Your task to perform on an android device: Show me the alarms in the clock app Image 0: 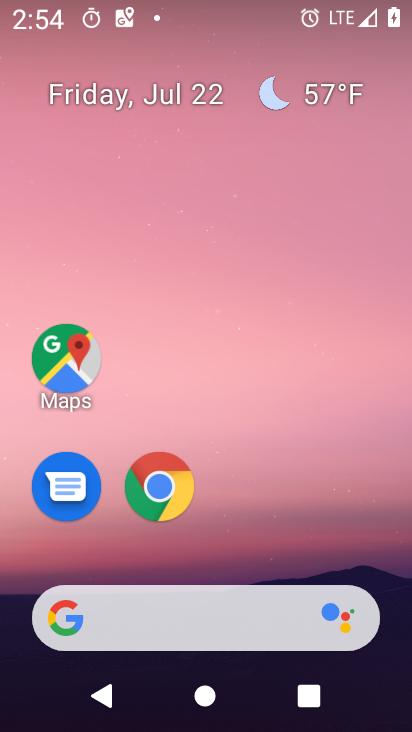
Step 0: press home button
Your task to perform on an android device: Show me the alarms in the clock app Image 1: 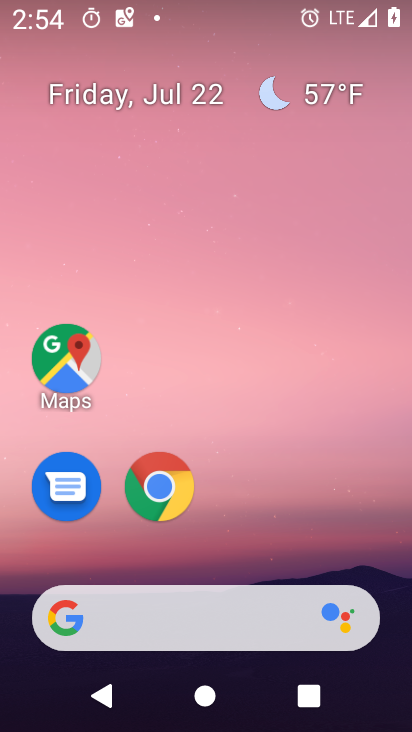
Step 1: drag from (373, 567) to (369, 109)
Your task to perform on an android device: Show me the alarms in the clock app Image 2: 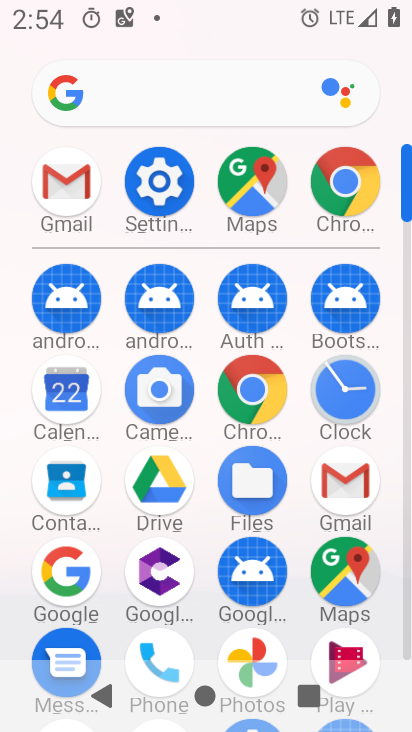
Step 2: click (351, 396)
Your task to perform on an android device: Show me the alarms in the clock app Image 3: 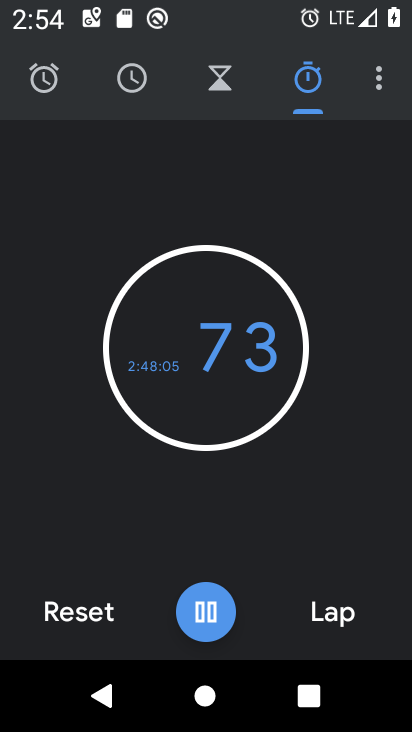
Step 3: click (48, 87)
Your task to perform on an android device: Show me the alarms in the clock app Image 4: 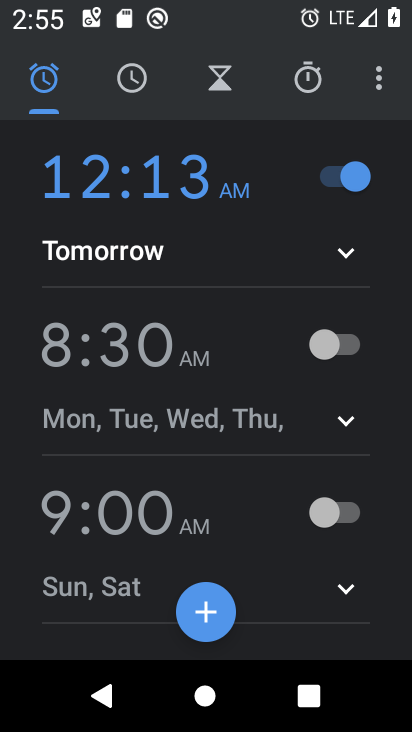
Step 4: task complete